Your task to perform on an android device: delete browsing data in the chrome app Image 0: 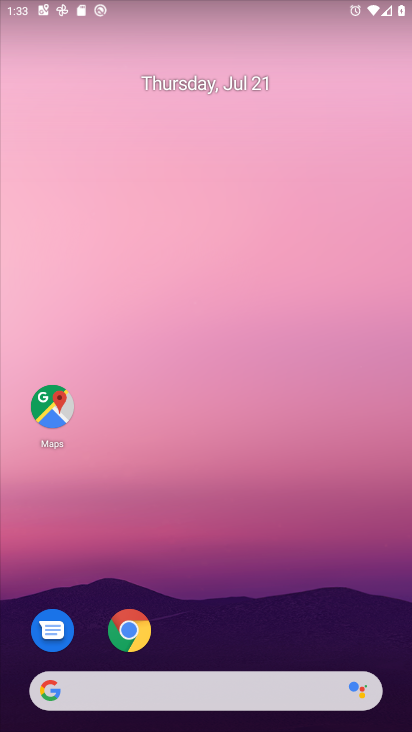
Step 0: drag from (193, 479) to (246, 12)
Your task to perform on an android device: delete browsing data in the chrome app Image 1: 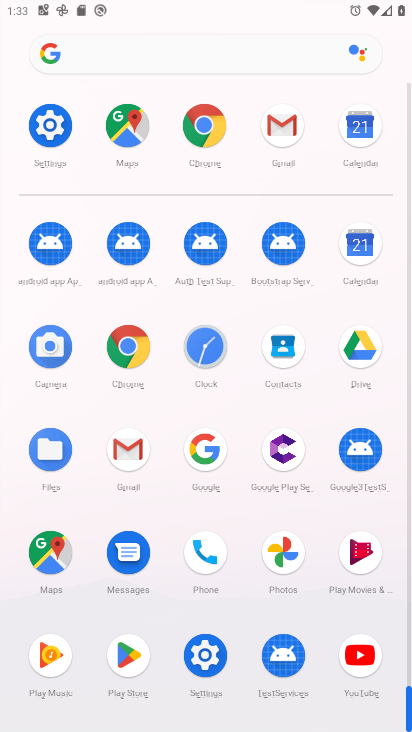
Step 1: click (129, 349)
Your task to perform on an android device: delete browsing data in the chrome app Image 2: 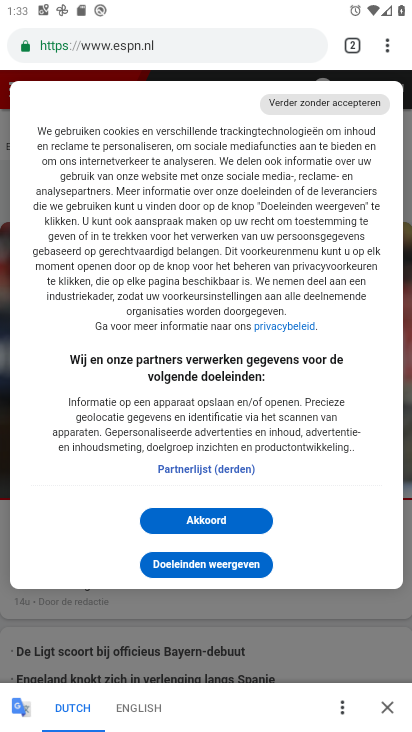
Step 2: drag from (390, 42) to (252, 250)
Your task to perform on an android device: delete browsing data in the chrome app Image 3: 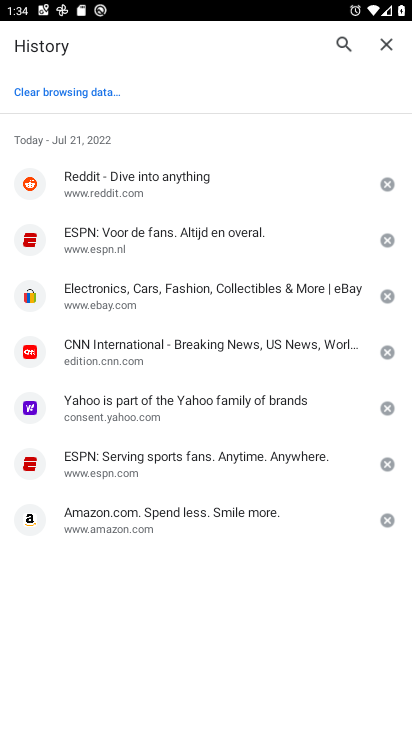
Step 3: click (37, 91)
Your task to perform on an android device: delete browsing data in the chrome app Image 4: 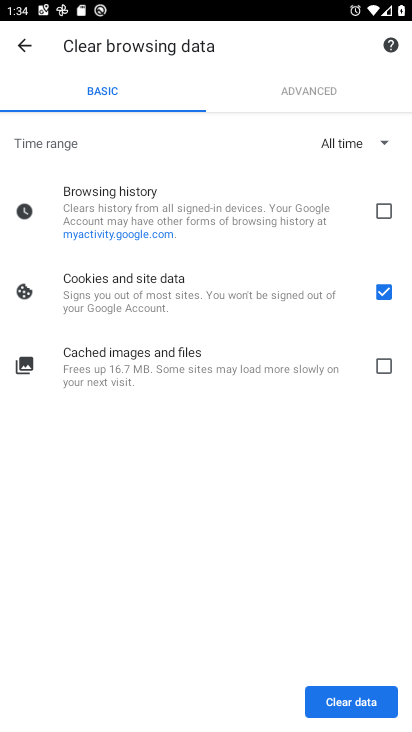
Step 4: click (377, 213)
Your task to perform on an android device: delete browsing data in the chrome app Image 5: 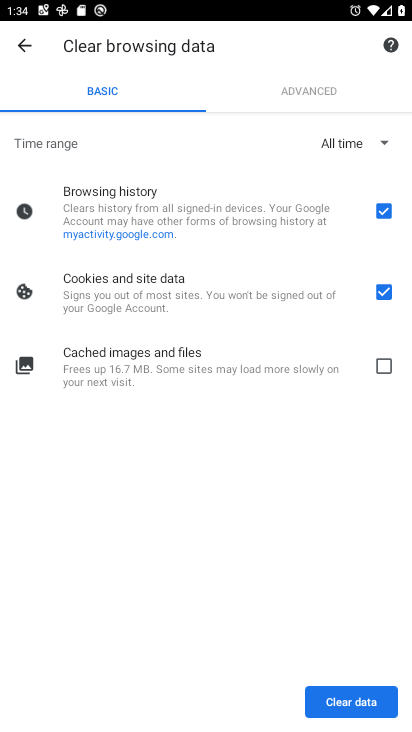
Step 5: click (373, 342)
Your task to perform on an android device: delete browsing data in the chrome app Image 6: 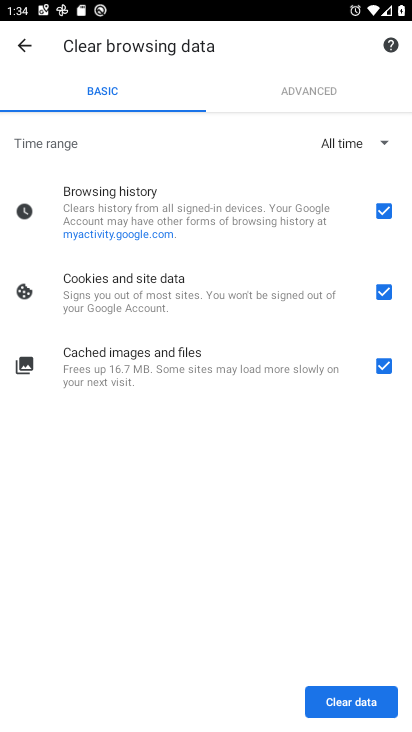
Step 6: click (329, 702)
Your task to perform on an android device: delete browsing data in the chrome app Image 7: 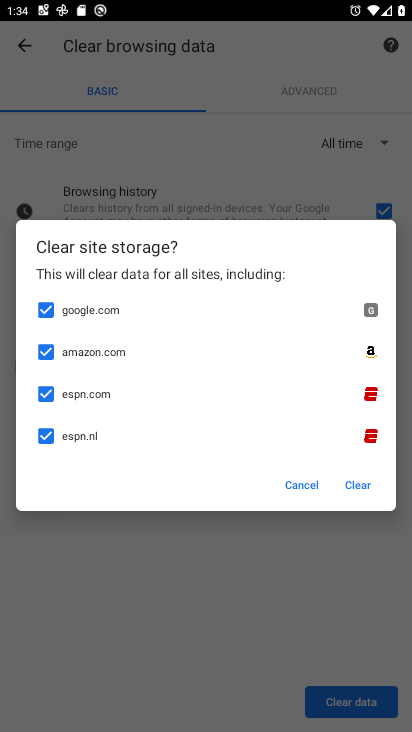
Step 7: click (362, 473)
Your task to perform on an android device: delete browsing data in the chrome app Image 8: 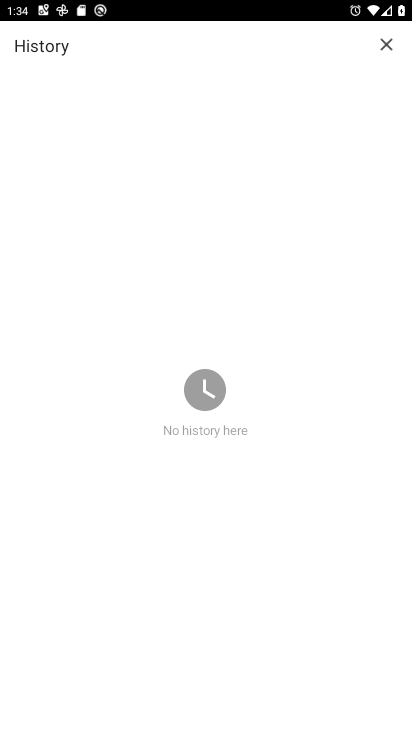
Step 8: task complete